Your task to perform on an android device: check battery use Image 0: 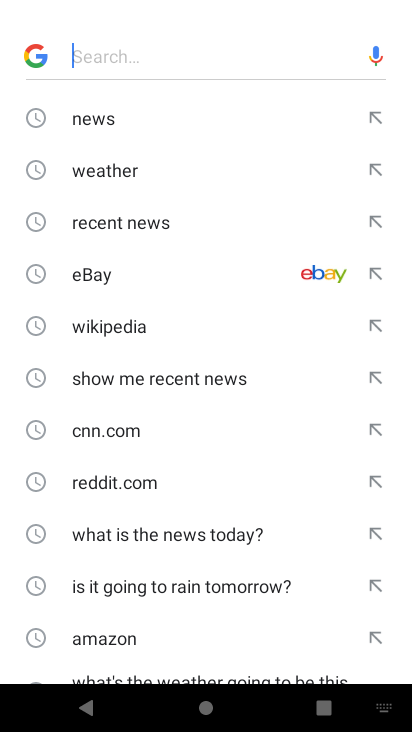
Step 0: press home button
Your task to perform on an android device: check battery use Image 1: 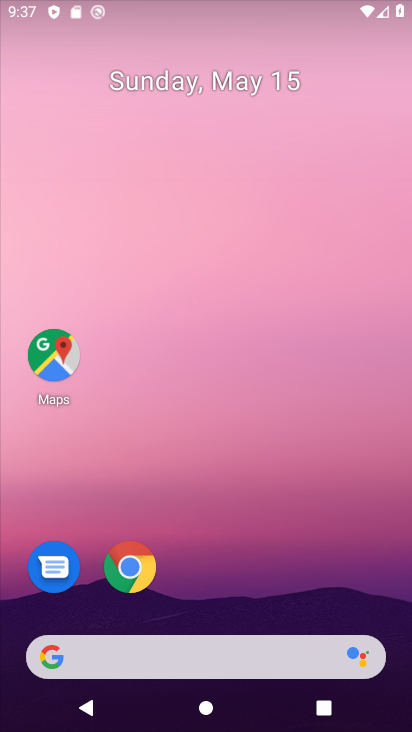
Step 1: drag from (227, 533) to (213, 39)
Your task to perform on an android device: check battery use Image 2: 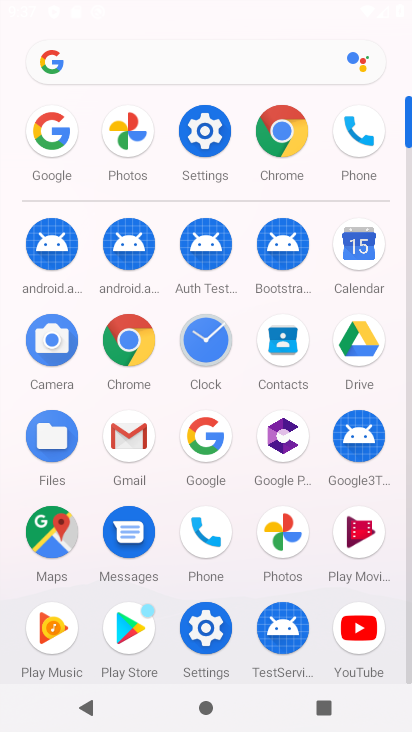
Step 2: click (203, 134)
Your task to perform on an android device: check battery use Image 3: 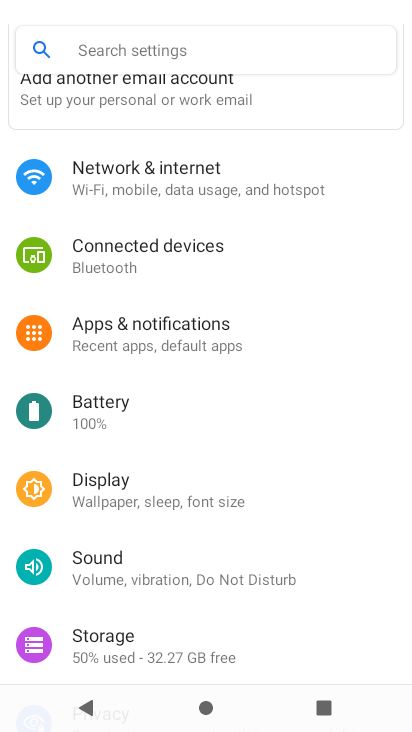
Step 3: drag from (204, 590) to (189, 491)
Your task to perform on an android device: check battery use Image 4: 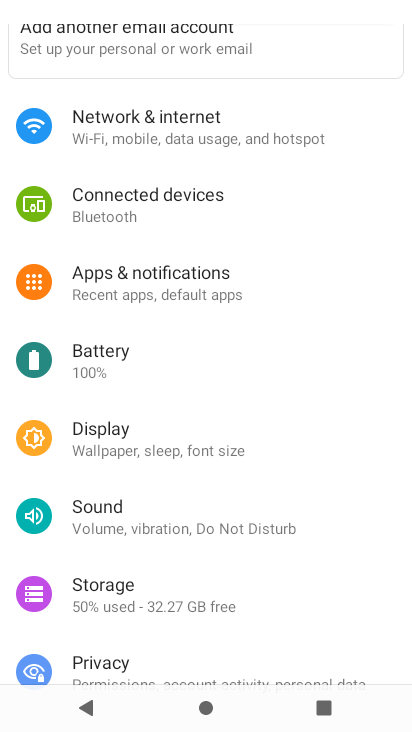
Step 4: click (144, 352)
Your task to perform on an android device: check battery use Image 5: 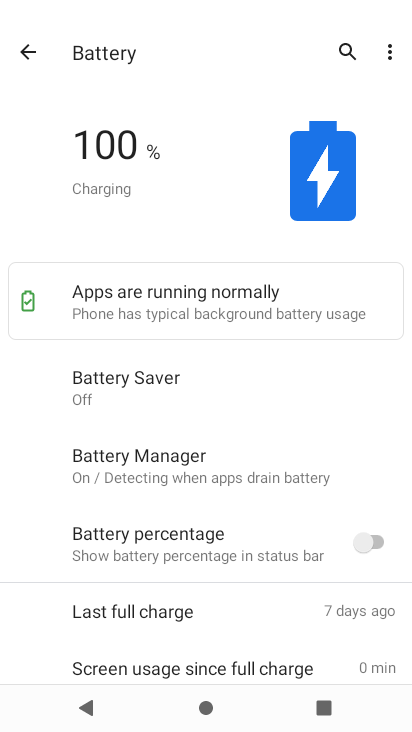
Step 5: click (382, 49)
Your task to perform on an android device: check battery use Image 6: 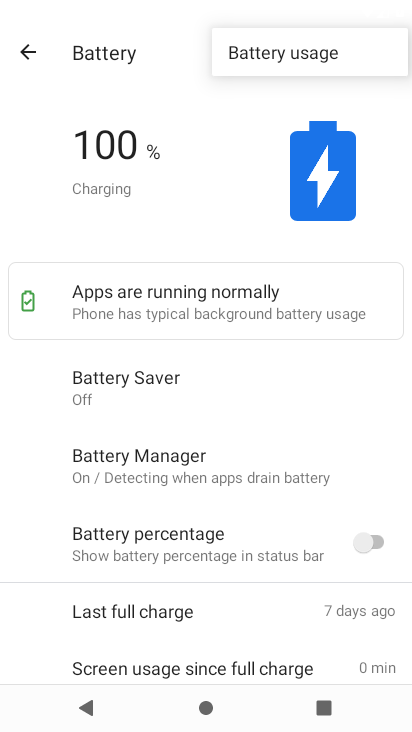
Step 6: click (275, 63)
Your task to perform on an android device: check battery use Image 7: 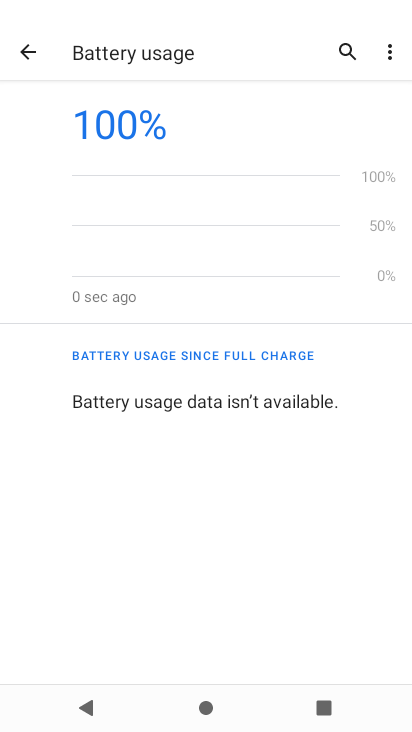
Step 7: task complete